Your task to perform on an android device: turn notification dots on Image 0: 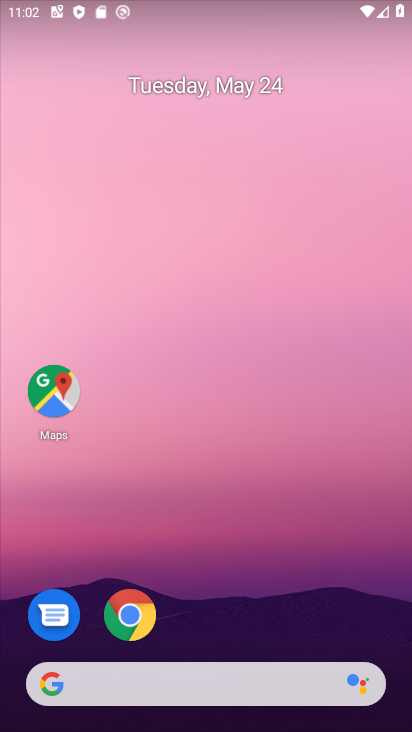
Step 0: drag from (312, 568) to (311, 238)
Your task to perform on an android device: turn notification dots on Image 1: 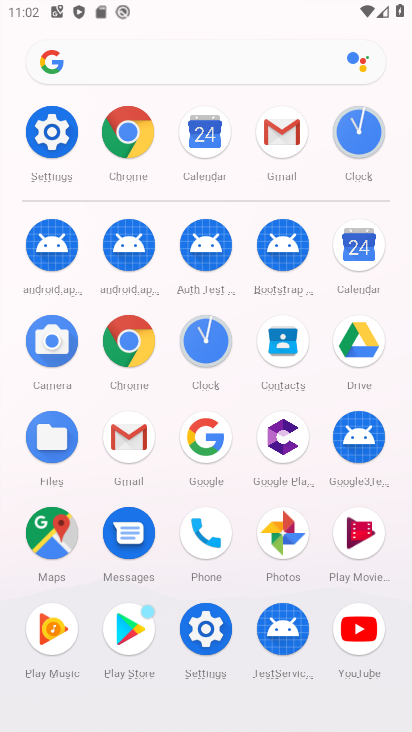
Step 1: click (44, 140)
Your task to perform on an android device: turn notification dots on Image 2: 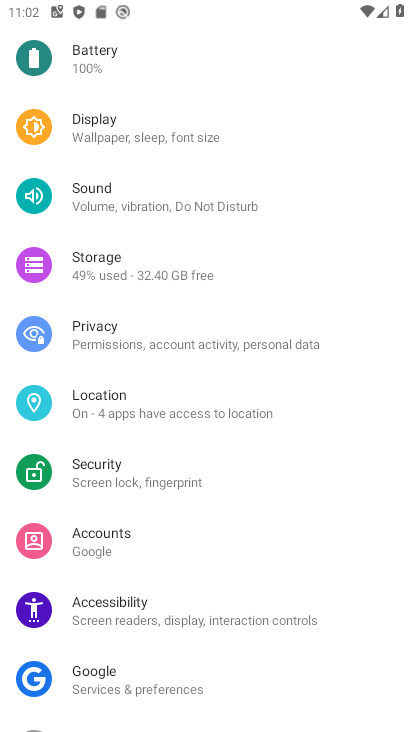
Step 2: drag from (139, 85) to (224, 686)
Your task to perform on an android device: turn notification dots on Image 3: 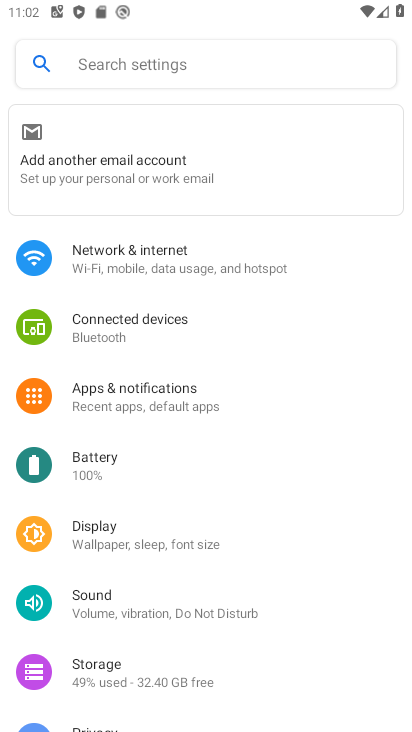
Step 3: click (157, 384)
Your task to perform on an android device: turn notification dots on Image 4: 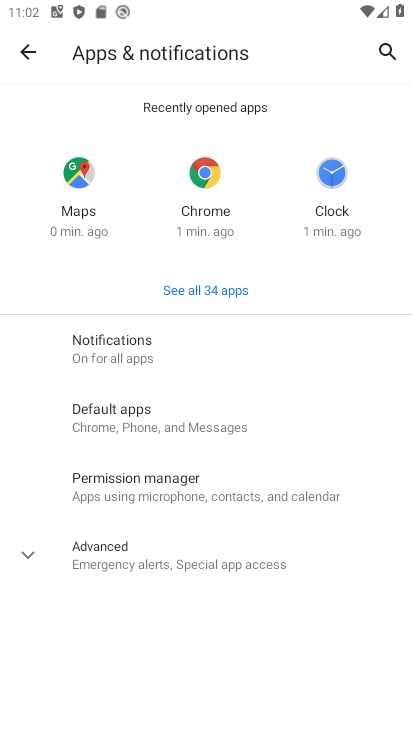
Step 4: click (185, 560)
Your task to perform on an android device: turn notification dots on Image 5: 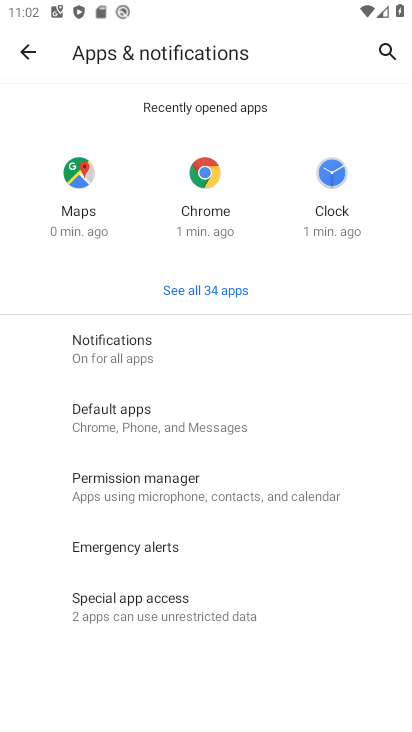
Step 5: click (181, 340)
Your task to perform on an android device: turn notification dots on Image 6: 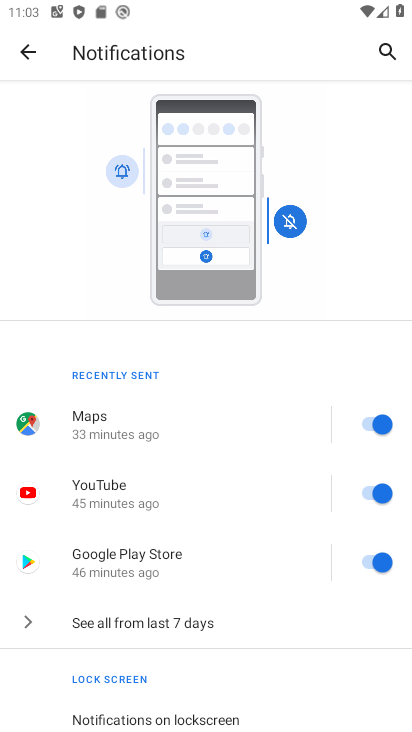
Step 6: drag from (221, 700) to (267, 349)
Your task to perform on an android device: turn notification dots on Image 7: 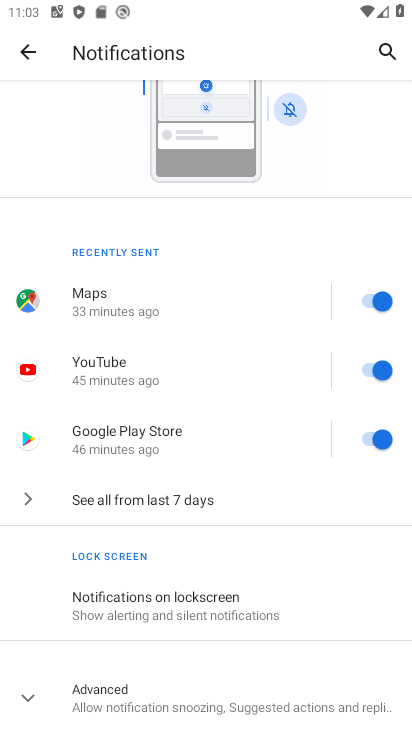
Step 7: click (229, 679)
Your task to perform on an android device: turn notification dots on Image 8: 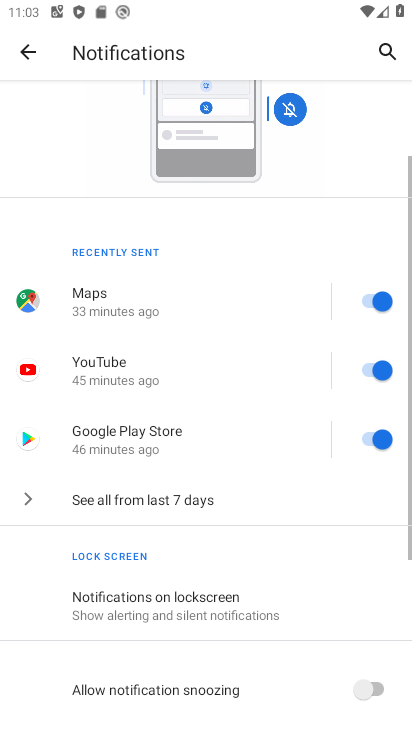
Step 8: task complete